Your task to perform on an android device: turn off notifications settings in the gmail app Image 0: 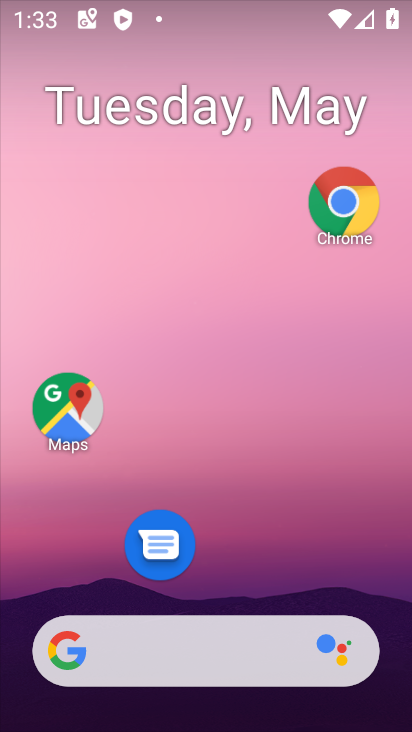
Step 0: drag from (233, 578) to (229, 98)
Your task to perform on an android device: turn off notifications settings in the gmail app Image 1: 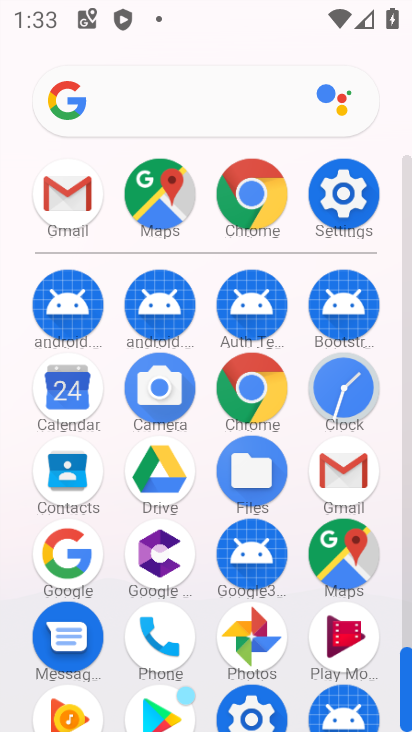
Step 1: click (337, 191)
Your task to perform on an android device: turn off notifications settings in the gmail app Image 2: 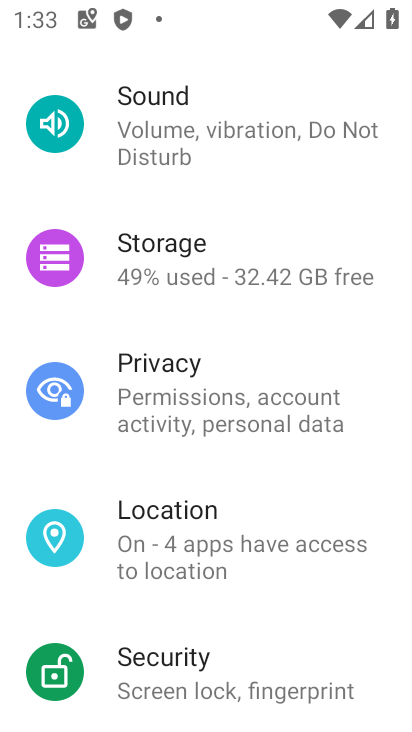
Step 2: drag from (337, 191) to (275, 694)
Your task to perform on an android device: turn off notifications settings in the gmail app Image 3: 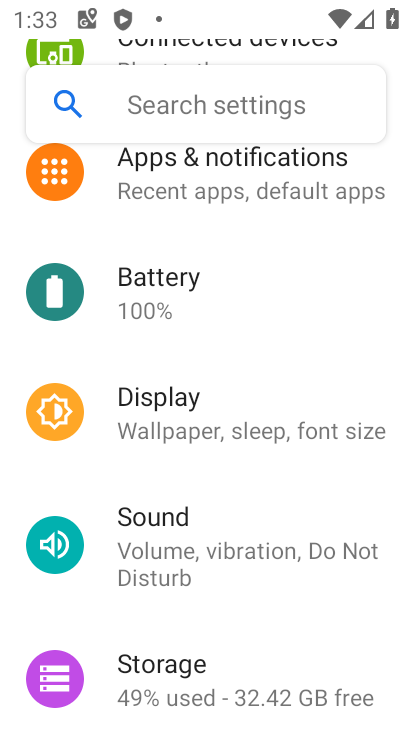
Step 3: click (246, 186)
Your task to perform on an android device: turn off notifications settings in the gmail app Image 4: 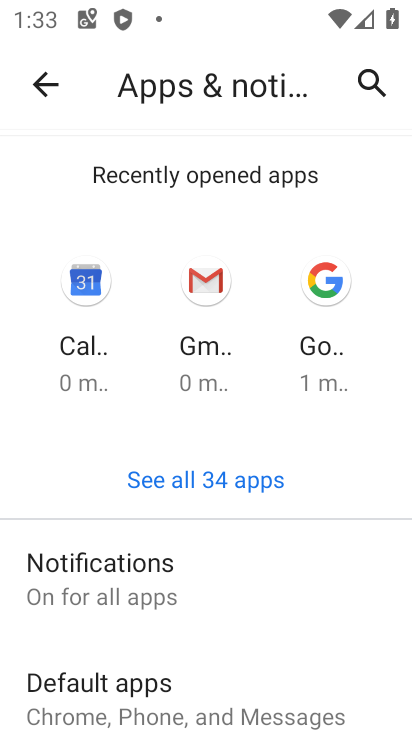
Step 4: click (199, 275)
Your task to perform on an android device: turn off notifications settings in the gmail app Image 5: 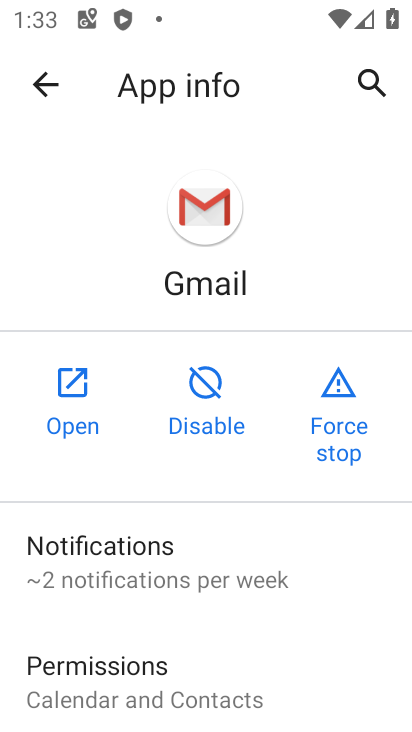
Step 5: click (189, 527)
Your task to perform on an android device: turn off notifications settings in the gmail app Image 6: 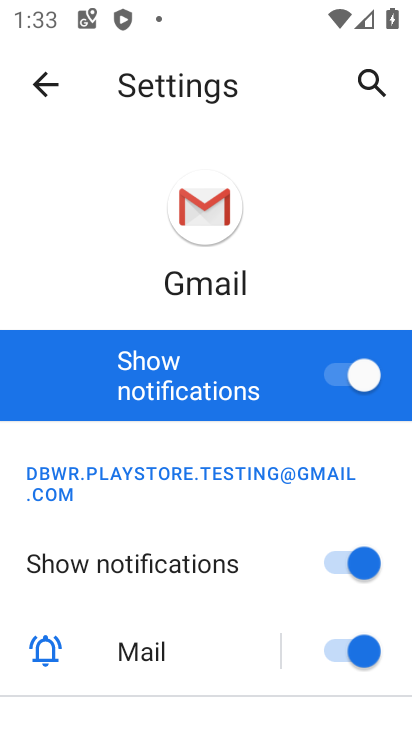
Step 6: click (351, 366)
Your task to perform on an android device: turn off notifications settings in the gmail app Image 7: 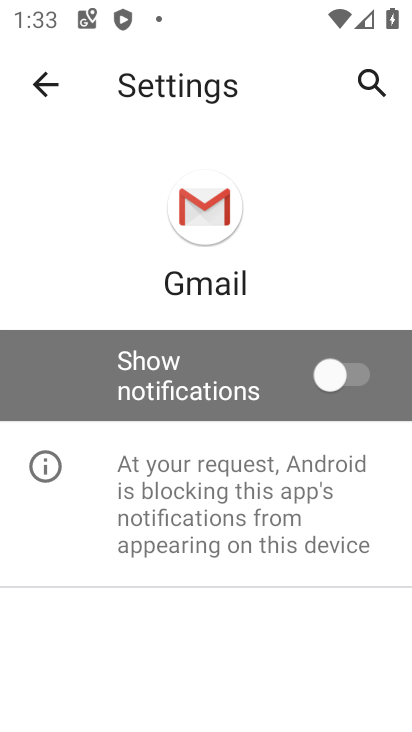
Step 7: task complete